Your task to perform on an android device: Go to Amazon Image 0: 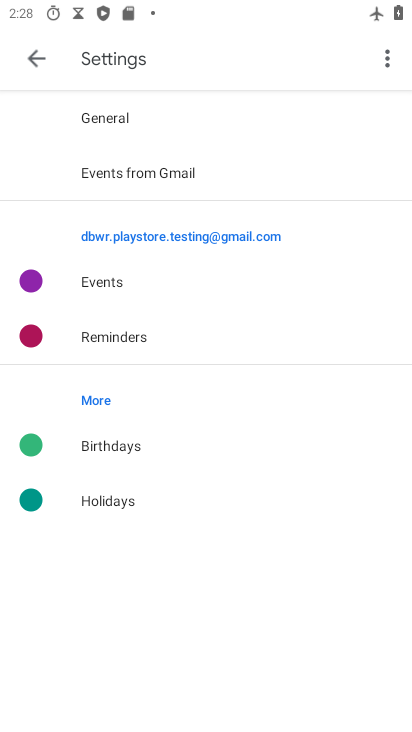
Step 0: task impossible